Your task to perform on an android device: turn pop-ups on in chrome Image 0: 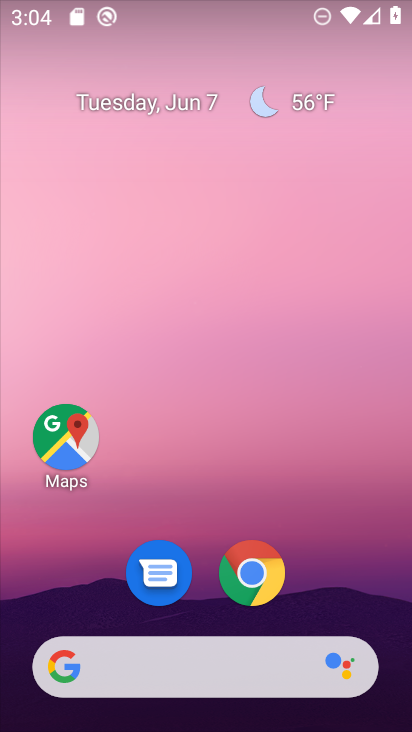
Step 0: click (233, 566)
Your task to perform on an android device: turn pop-ups on in chrome Image 1: 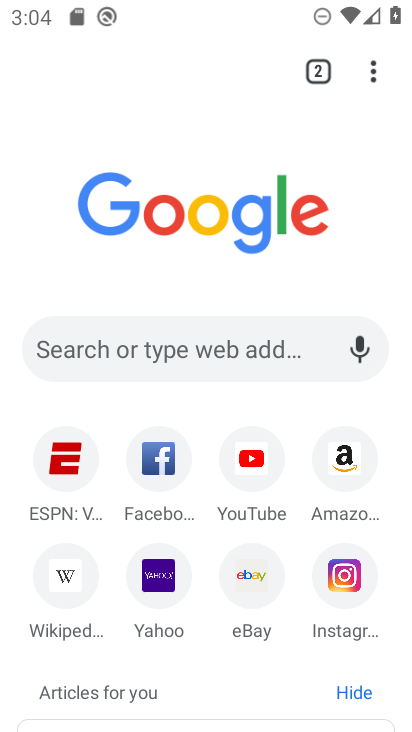
Step 1: click (374, 77)
Your task to perform on an android device: turn pop-ups on in chrome Image 2: 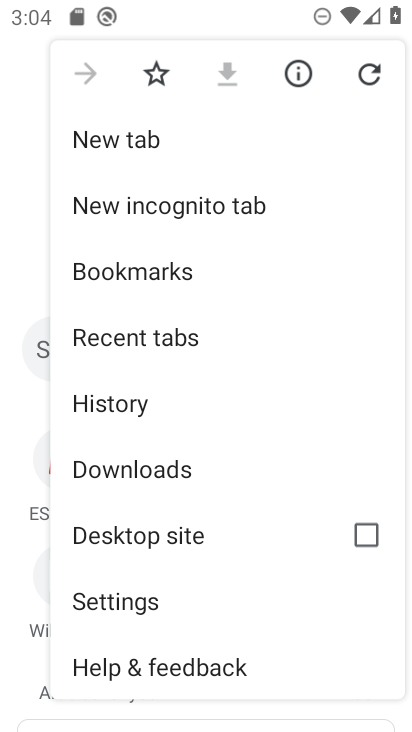
Step 2: click (141, 606)
Your task to perform on an android device: turn pop-ups on in chrome Image 3: 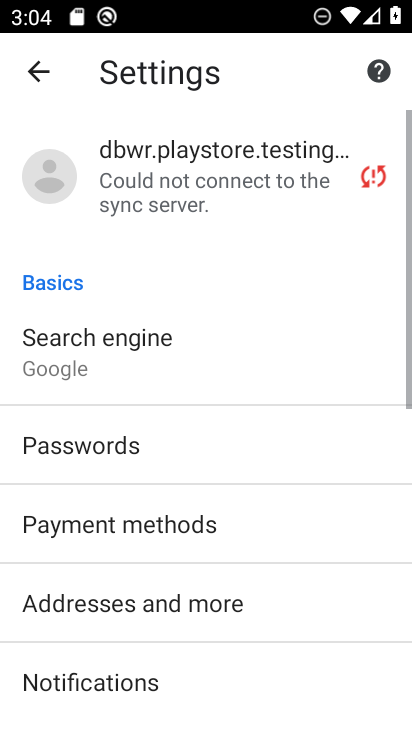
Step 3: drag from (214, 606) to (184, 141)
Your task to perform on an android device: turn pop-ups on in chrome Image 4: 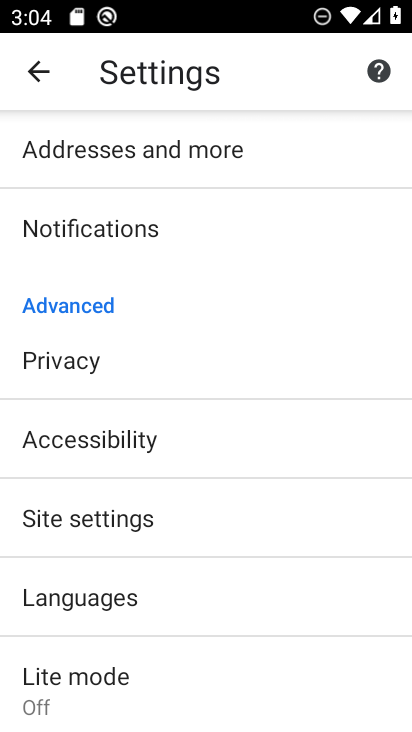
Step 4: click (144, 534)
Your task to perform on an android device: turn pop-ups on in chrome Image 5: 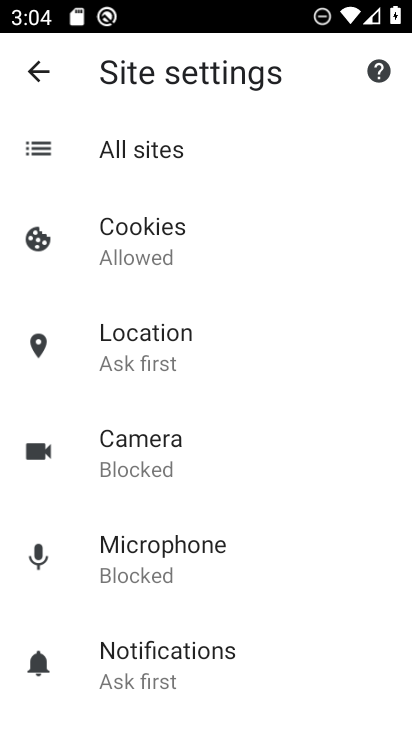
Step 5: drag from (170, 625) to (155, 252)
Your task to perform on an android device: turn pop-ups on in chrome Image 6: 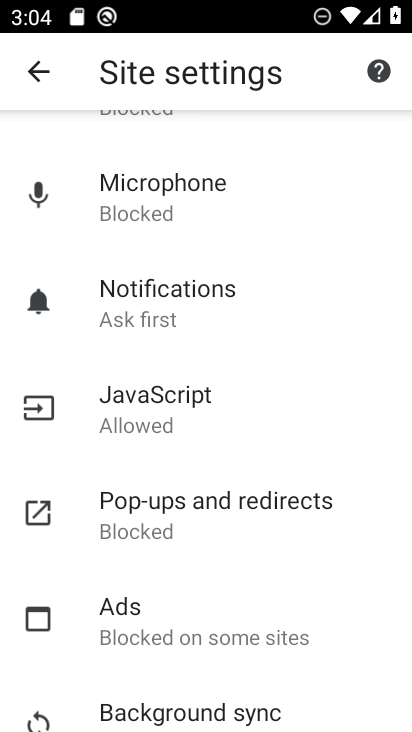
Step 6: click (163, 520)
Your task to perform on an android device: turn pop-ups on in chrome Image 7: 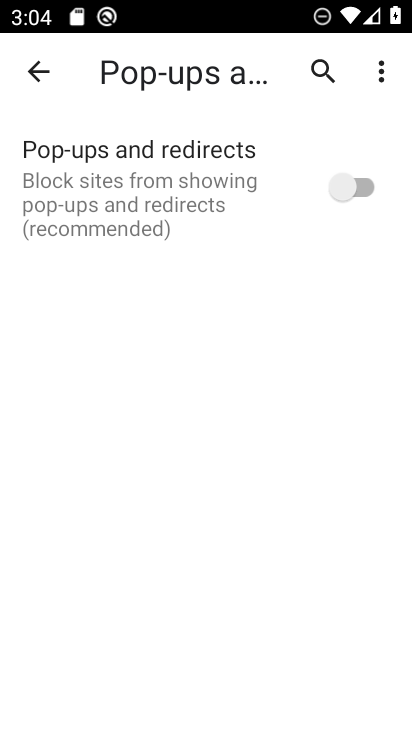
Step 7: click (362, 183)
Your task to perform on an android device: turn pop-ups on in chrome Image 8: 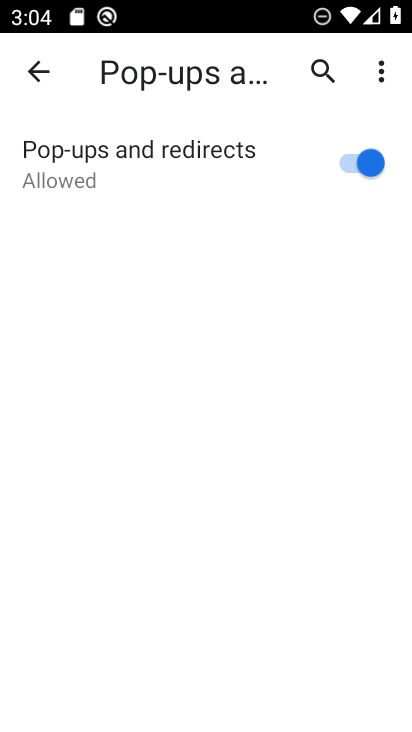
Step 8: task complete